Your task to perform on an android device: open app "Booking.com: Hotels and more" Image 0: 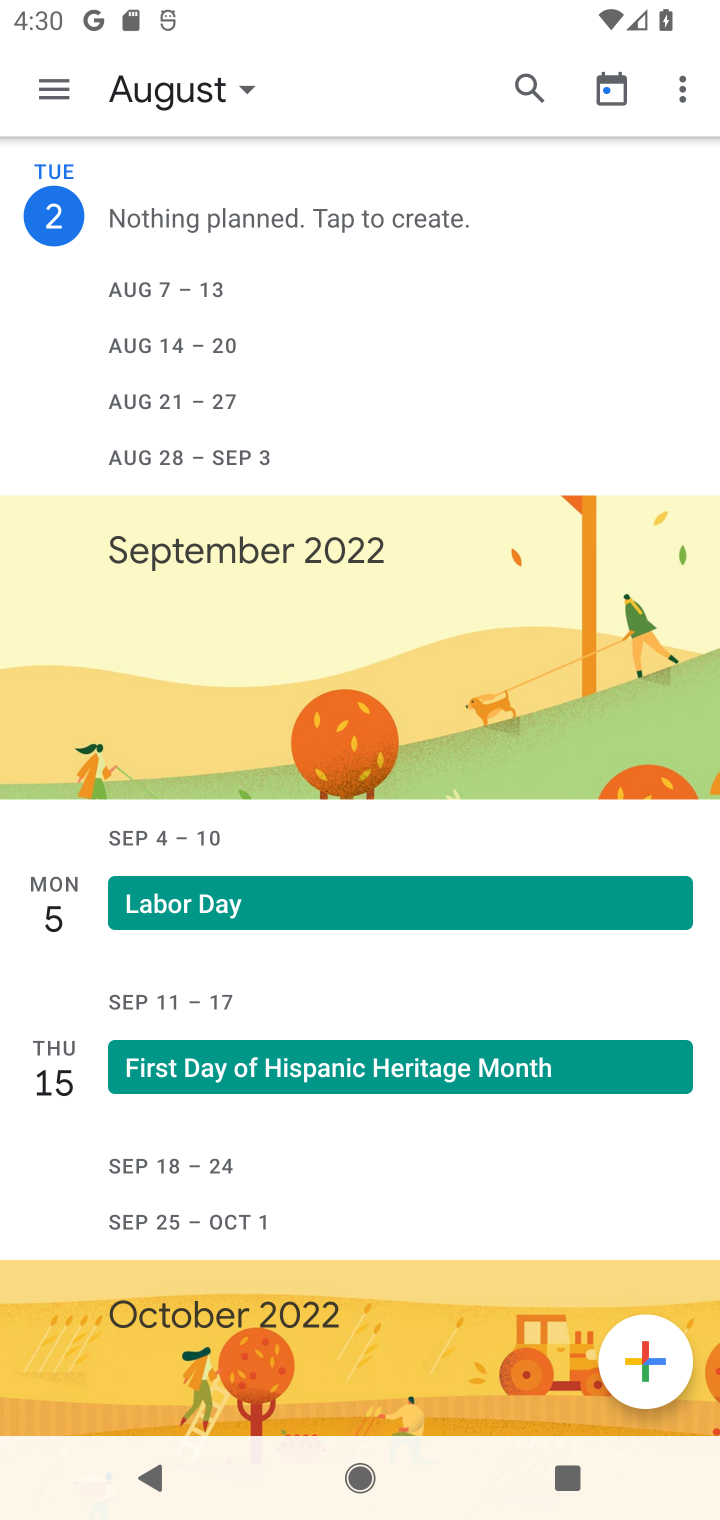
Step 0: press home button
Your task to perform on an android device: open app "Booking.com: Hotels and more" Image 1: 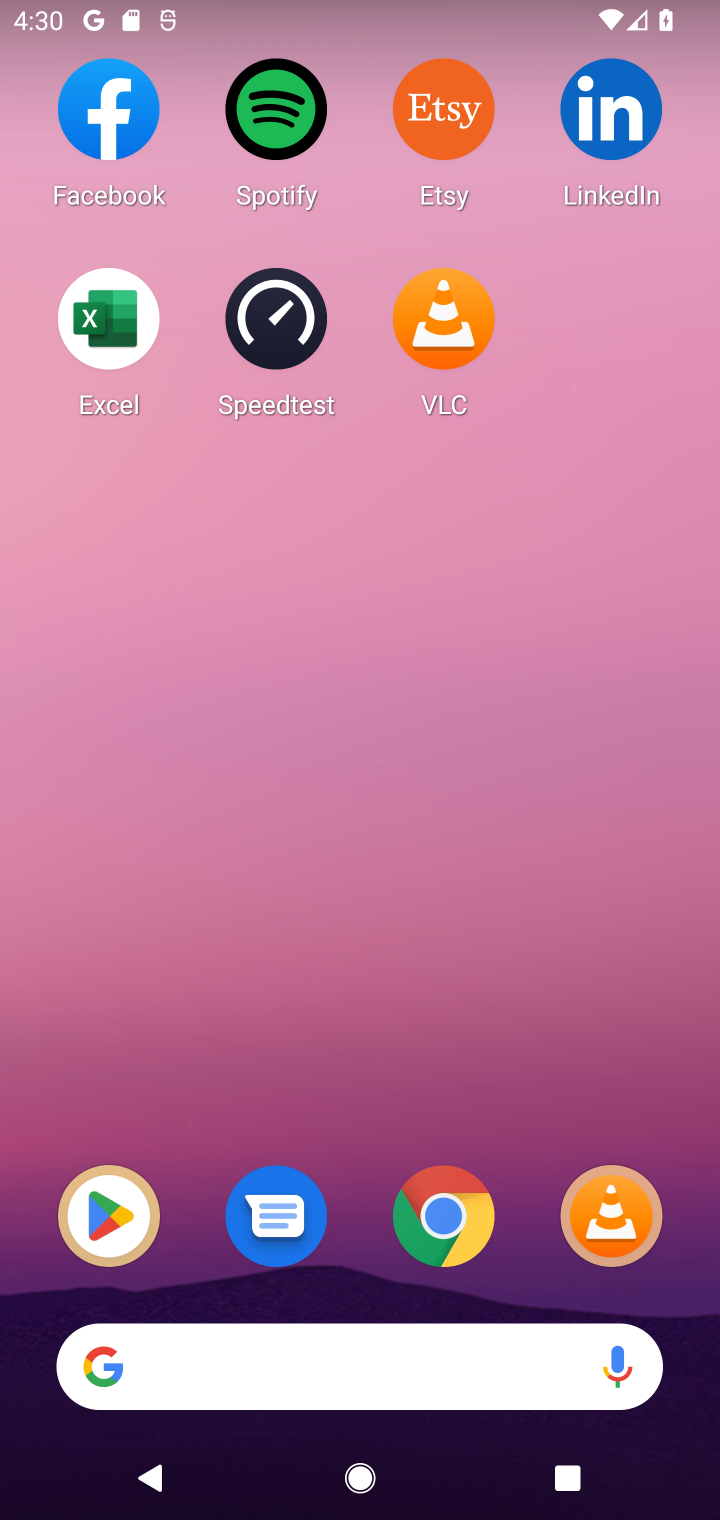
Step 1: click (154, 1219)
Your task to perform on an android device: open app "Booking.com: Hotels and more" Image 2: 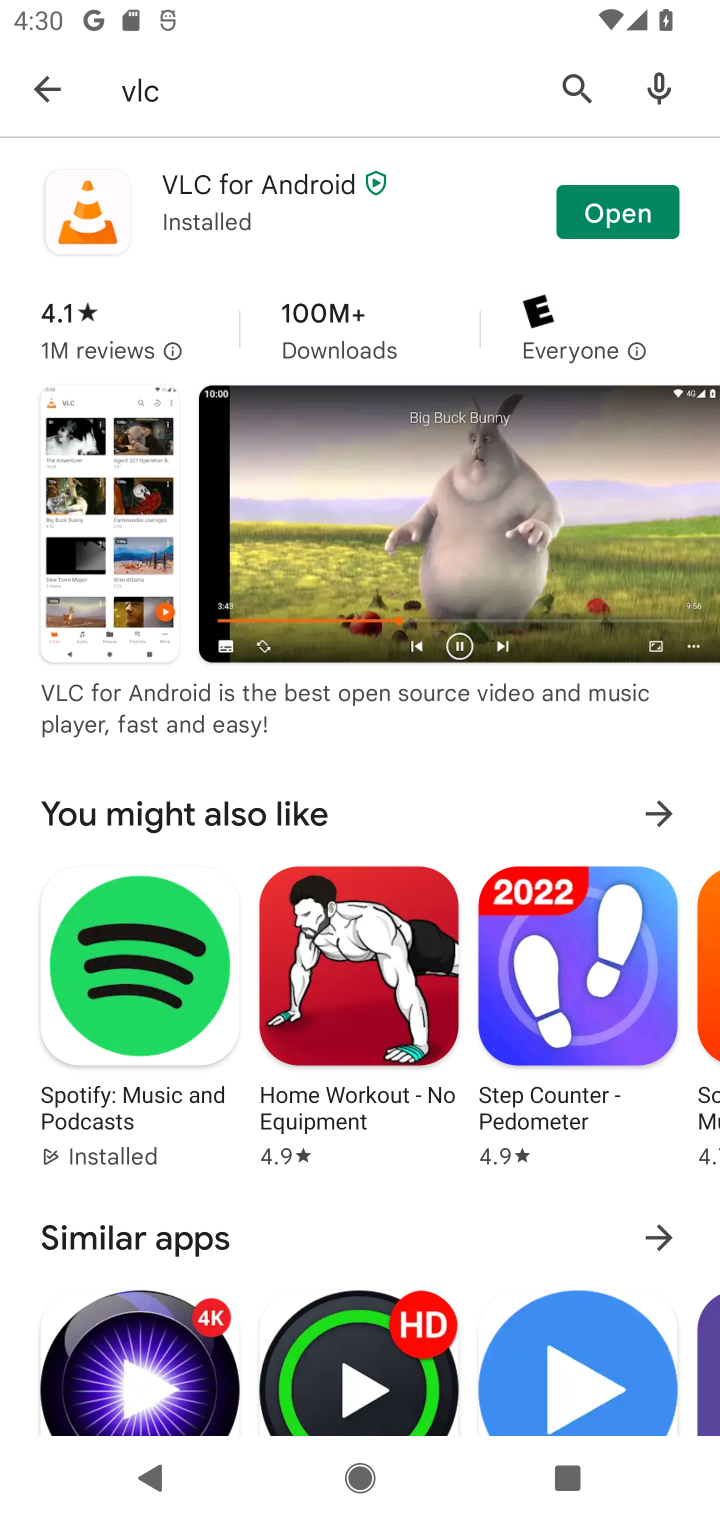
Step 2: click (555, 90)
Your task to perform on an android device: open app "Booking.com: Hotels and more" Image 3: 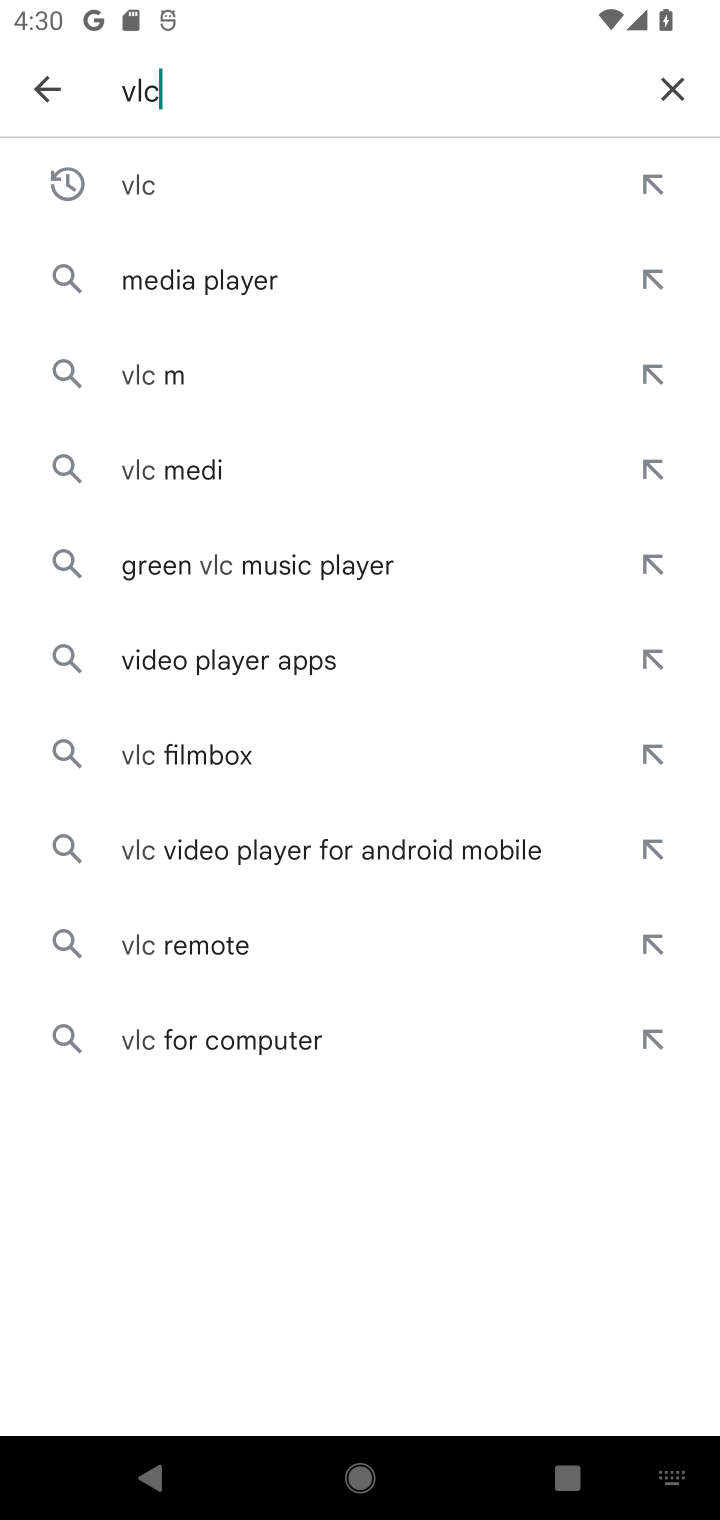
Step 3: click (662, 90)
Your task to perform on an android device: open app "Booking.com: Hotels and more" Image 4: 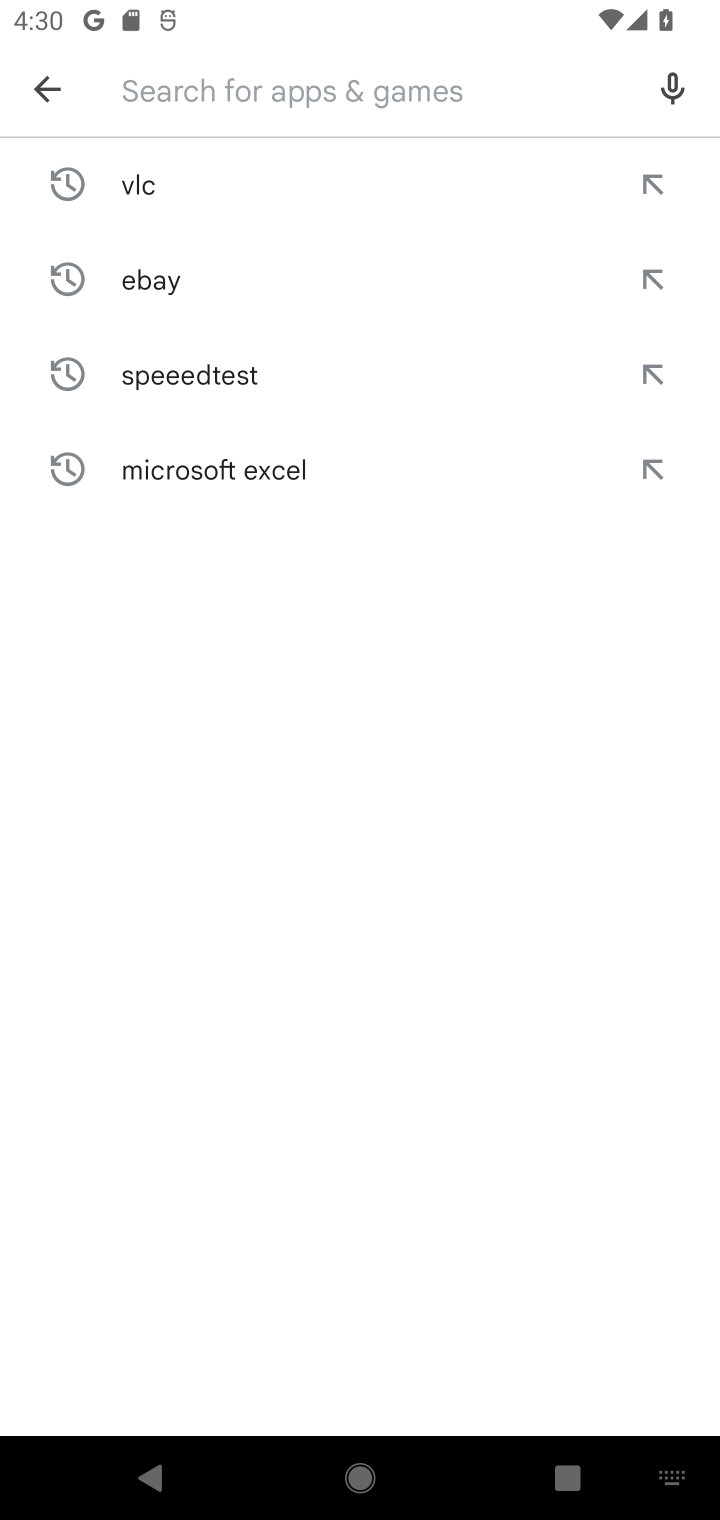
Step 4: type "booking"
Your task to perform on an android device: open app "Booking.com: Hotels and more" Image 5: 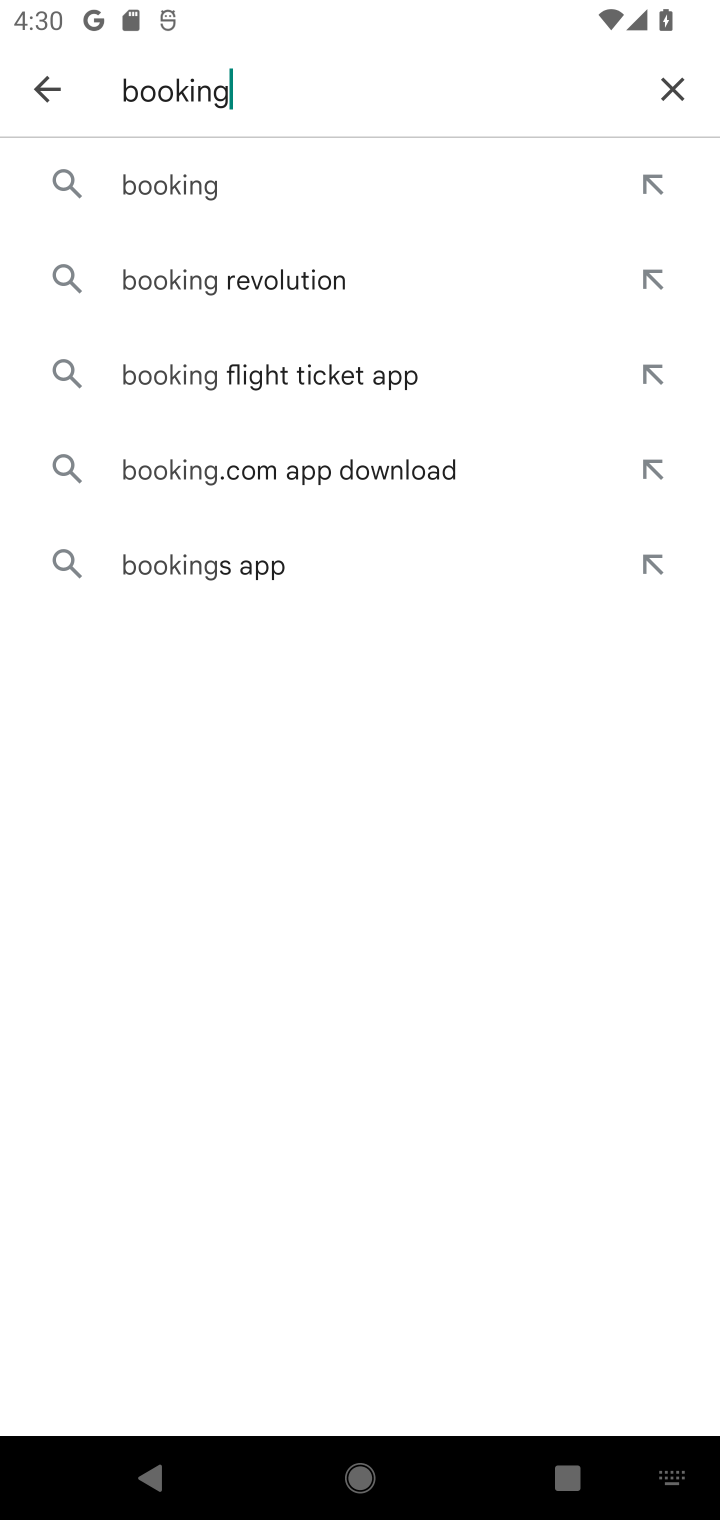
Step 5: click (224, 175)
Your task to perform on an android device: open app "Booking.com: Hotels and more" Image 6: 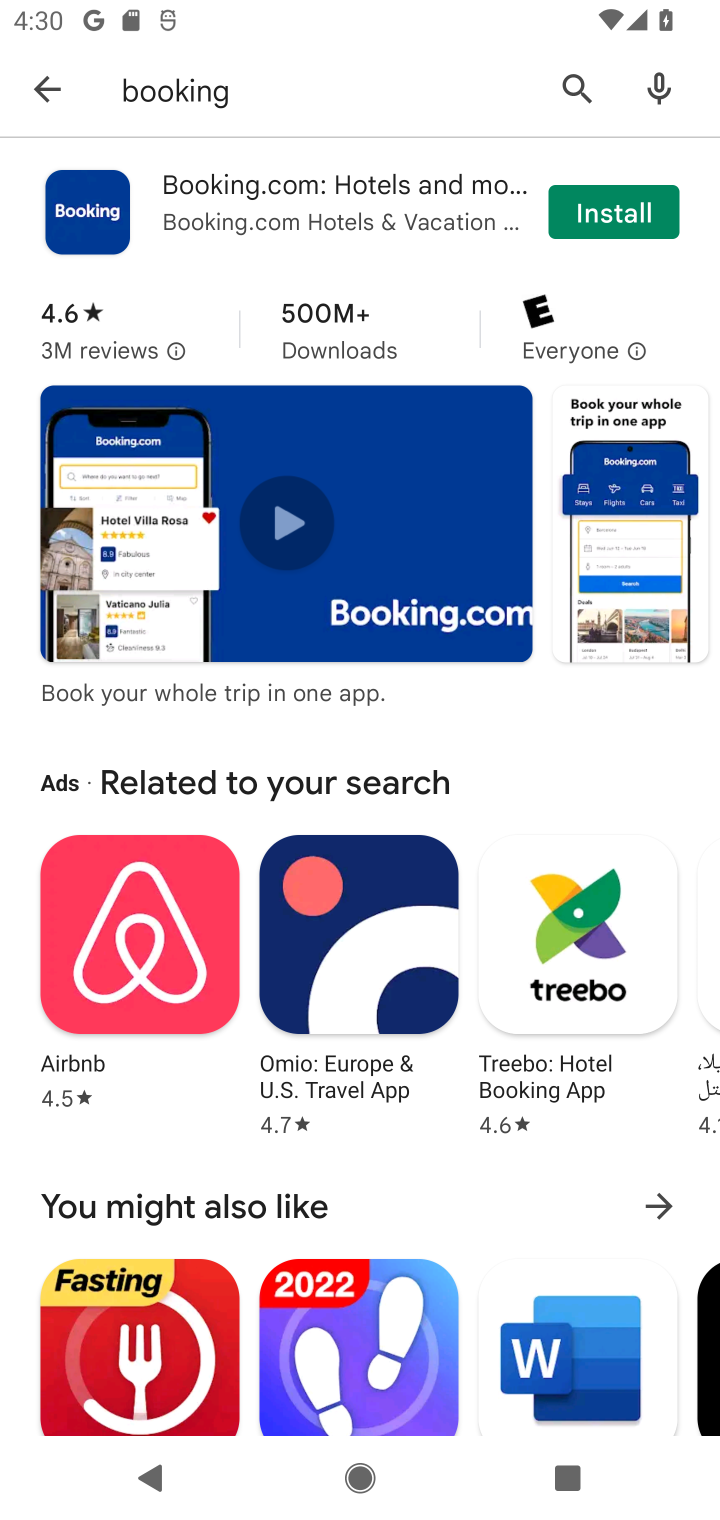
Step 6: click (610, 194)
Your task to perform on an android device: open app "Booking.com: Hotels and more" Image 7: 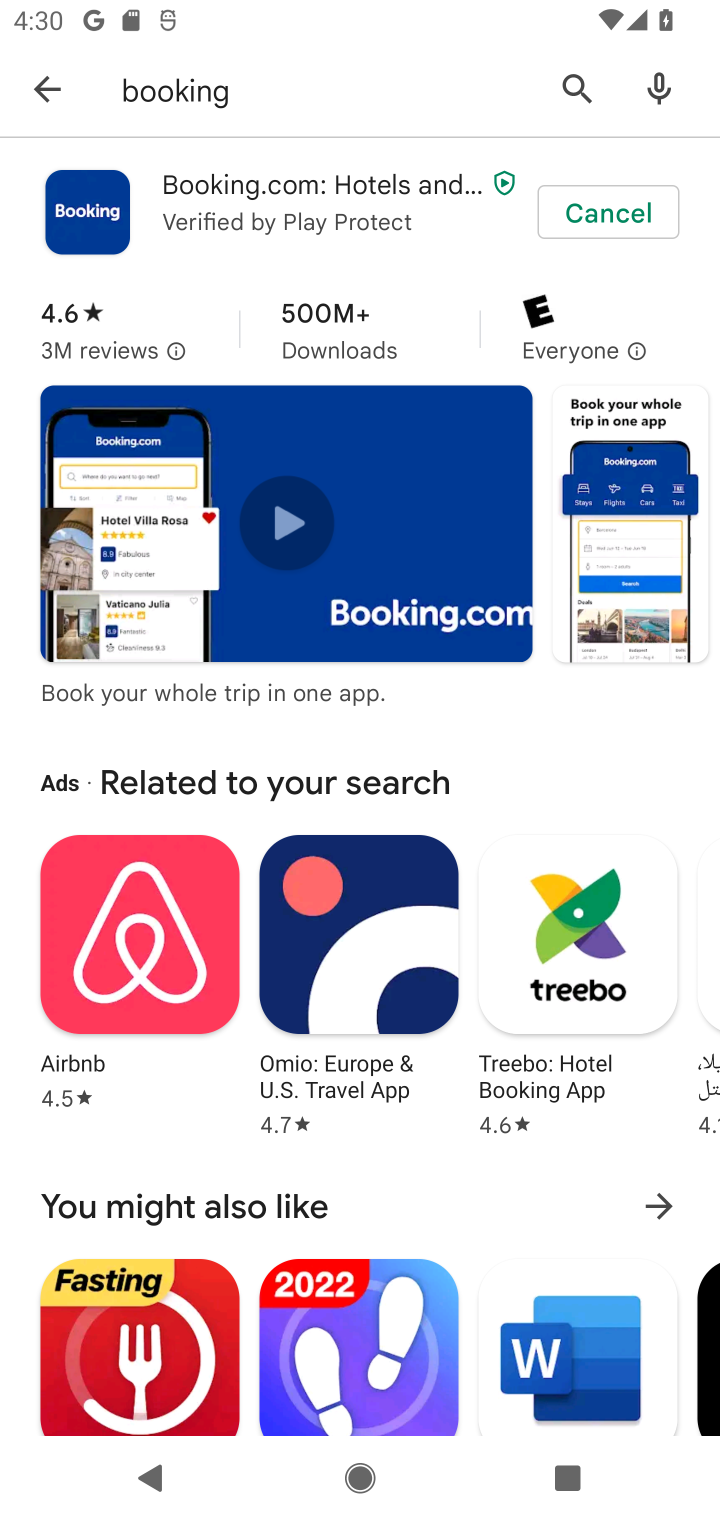
Step 7: task complete